Your task to perform on an android device: empty trash in the gmail app Image 0: 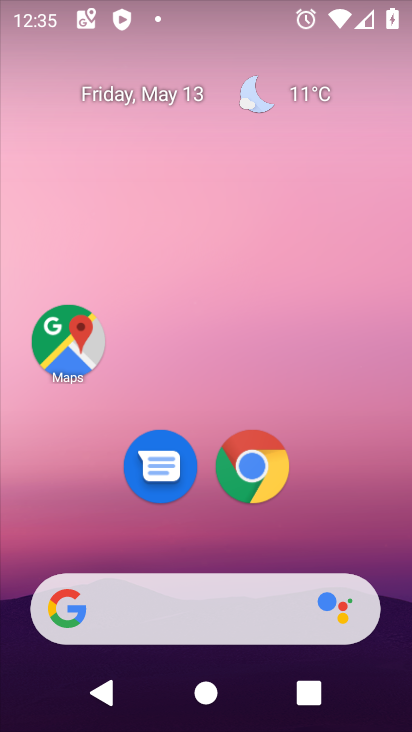
Step 0: drag from (389, 468) to (264, 110)
Your task to perform on an android device: empty trash in the gmail app Image 1: 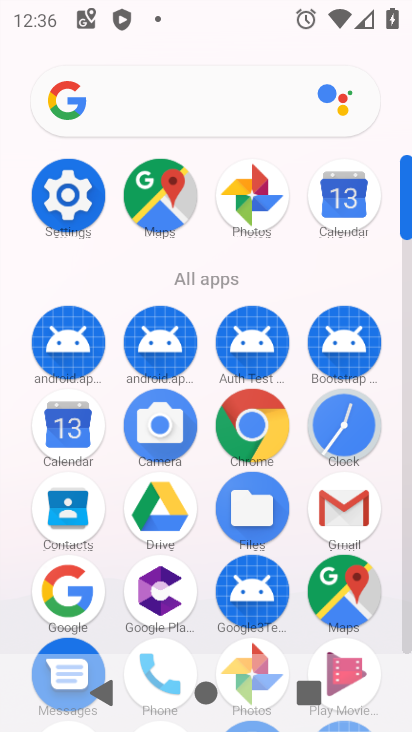
Step 1: click (364, 507)
Your task to perform on an android device: empty trash in the gmail app Image 2: 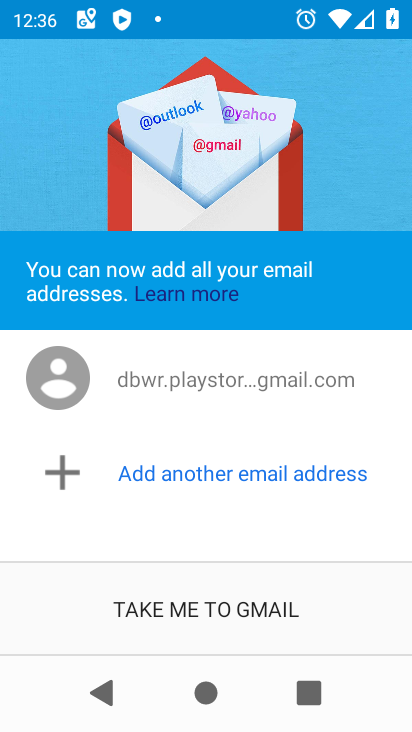
Step 2: click (205, 608)
Your task to perform on an android device: empty trash in the gmail app Image 3: 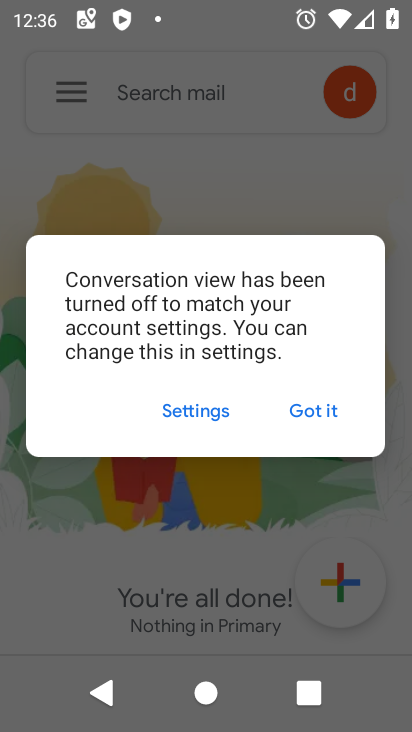
Step 3: click (304, 423)
Your task to perform on an android device: empty trash in the gmail app Image 4: 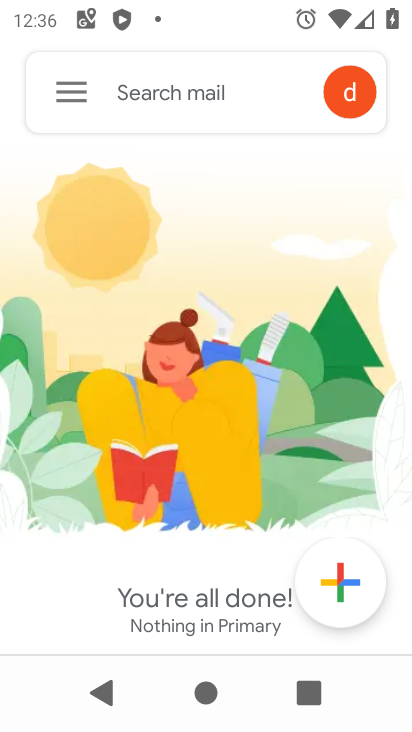
Step 4: click (74, 111)
Your task to perform on an android device: empty trash in the gmail app Image 5: 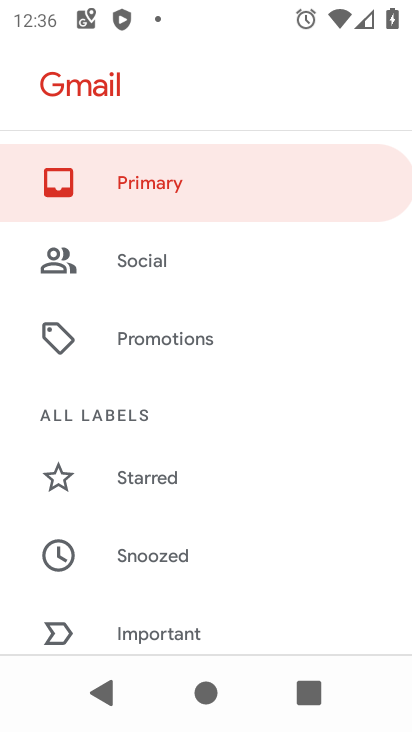
Step 5: drag from (273, 537) to (217, 278)
Your task to perform on an android device: empty trash in the gmail app Image 6: 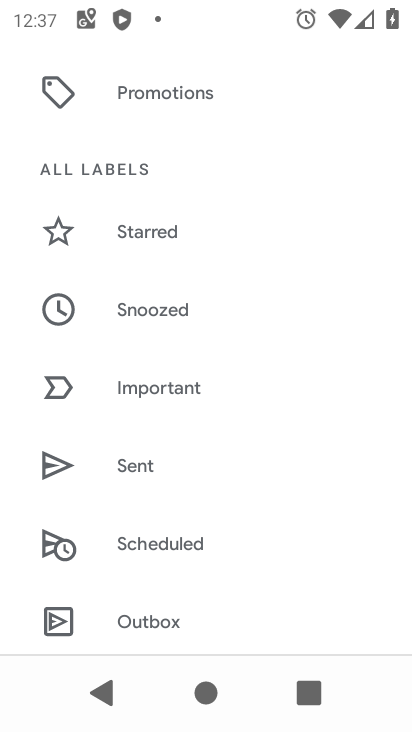
Step 6: drag from (281, 547) to (238, 382)
Your task to perform on an android device: empty trash in the gmail app Image 7: 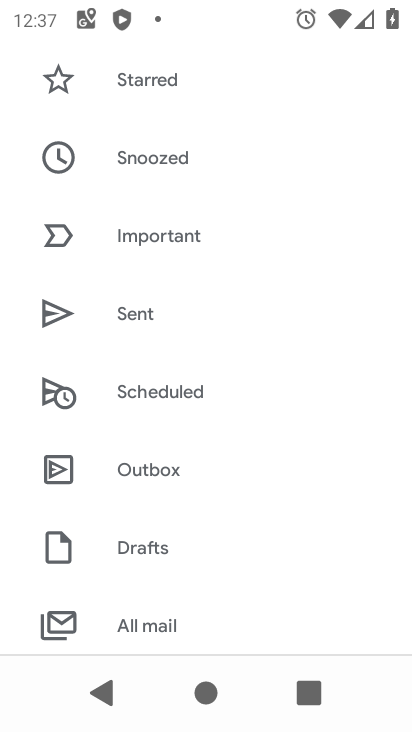
Step 7: drag from (161, 270) to (190, 82)
Your task to perform on an android device: empty trash in the gmail app Image 8: 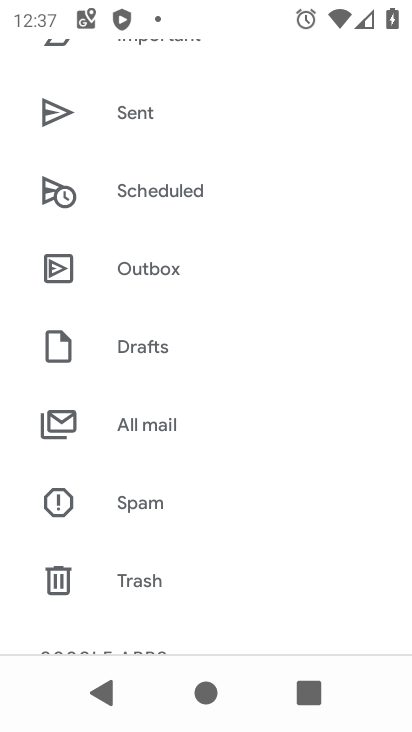
Step 8: click (169, 569)
Your task to perform on an android device: empty trash in the gmail app Image 9: 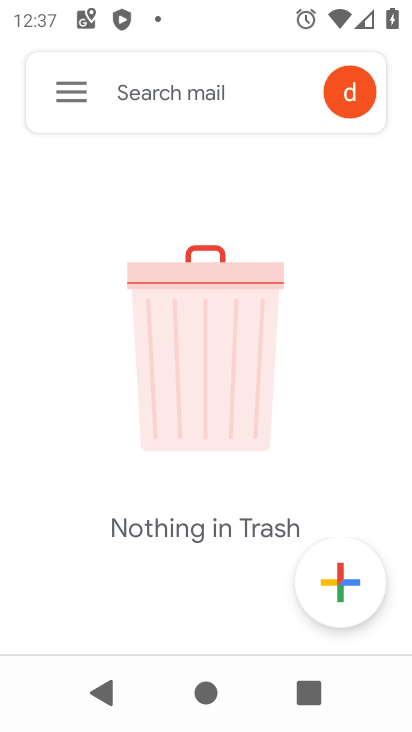
Step 9: task complete